Your task to perform on an android device: What's on my calendar tomorrow? Image 0: 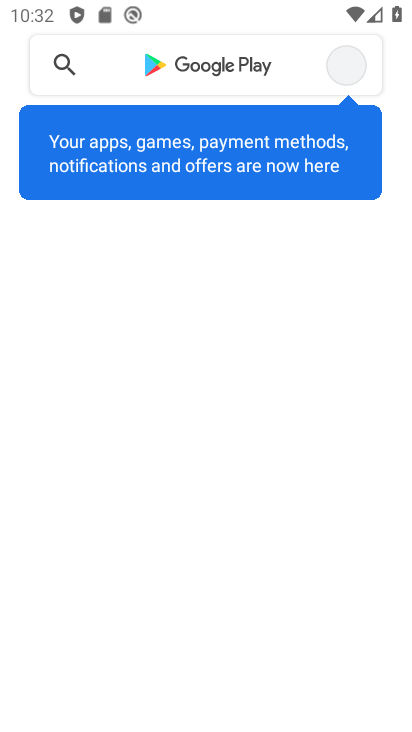
Step 0: press home button
Your task to perform on an android device: What's on my calendar tomorrow? Image 1: 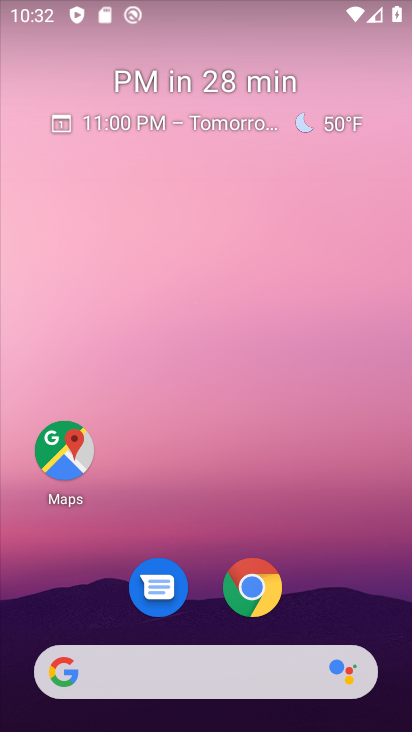
Step 1: click (256, 676)
Your task to perform on an android device: What's on my calendar tomorrow? Image 2: 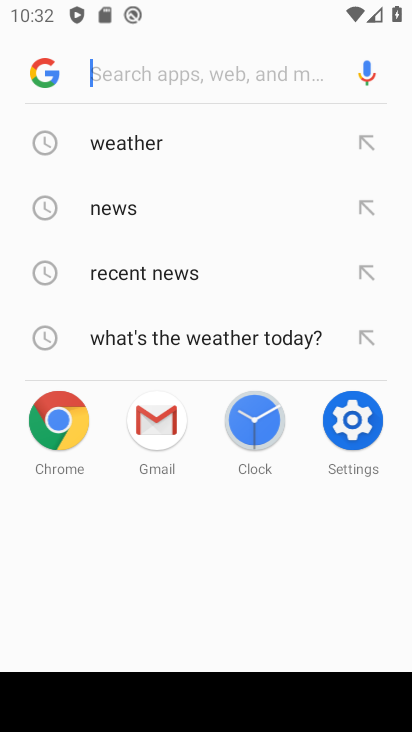
Step 2: press home button
Your task to perform on an android device: What's on my calendar tomorrow? Image 3: 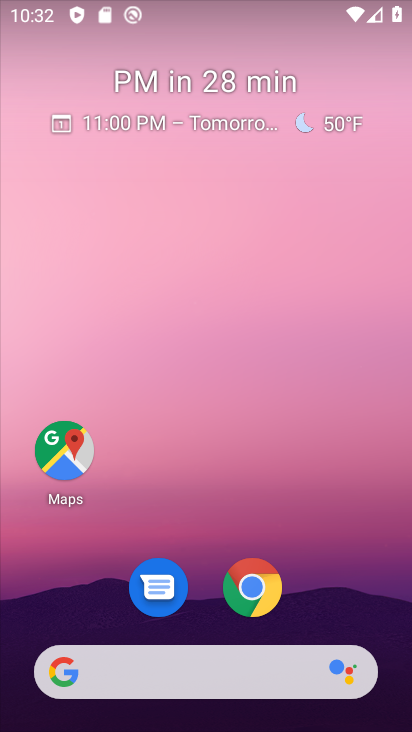
Step 3: drag from (198, 629) to (192, 78)
Your task to perform on an android device: What's on my calendar tomorrow? Image 4: 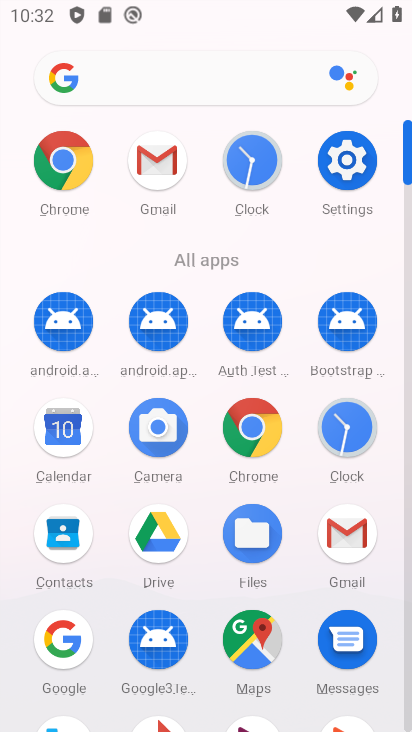
Step 4: click (55, 443)
Your task to perform on an android device: What's on my calendar tomorrow? Image 5: 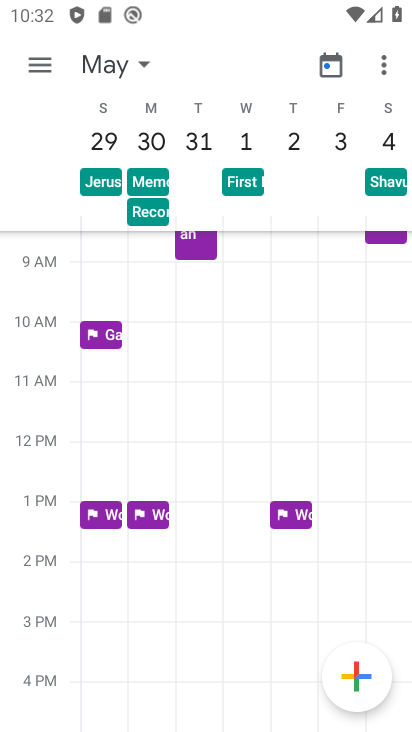
Step 5: click (342, 71)
Your task to perform on an android device: What's on my calendar tomorrow? Image 6: 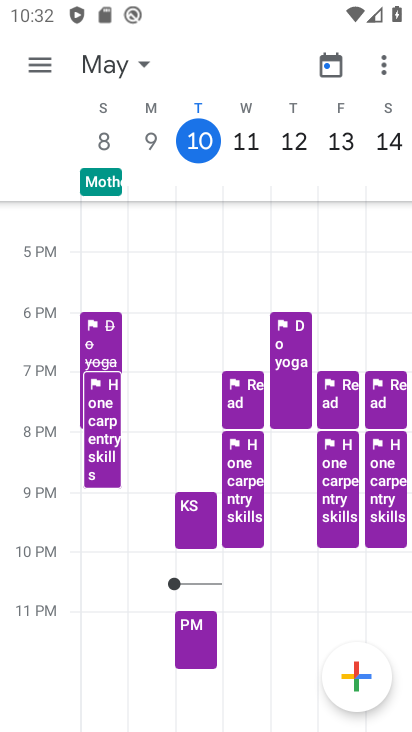
Step 6: click (228, 152)
Your task to perform on an android device: What's on my calendar tomorrow? Image 7: 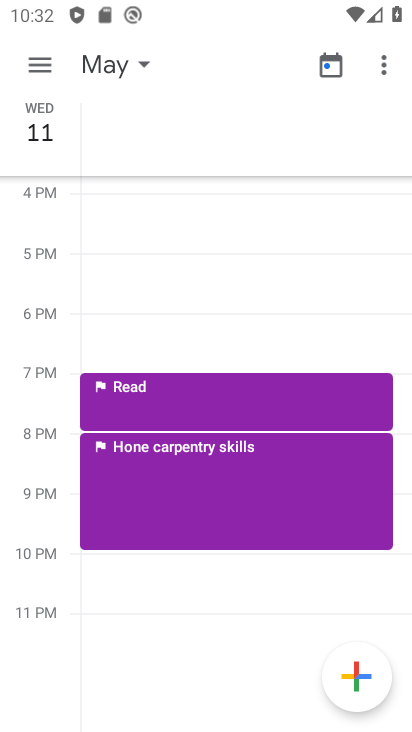
Step 7: task complete